Your task to perform on an android device: open a new tab in the chrome app Image 0: 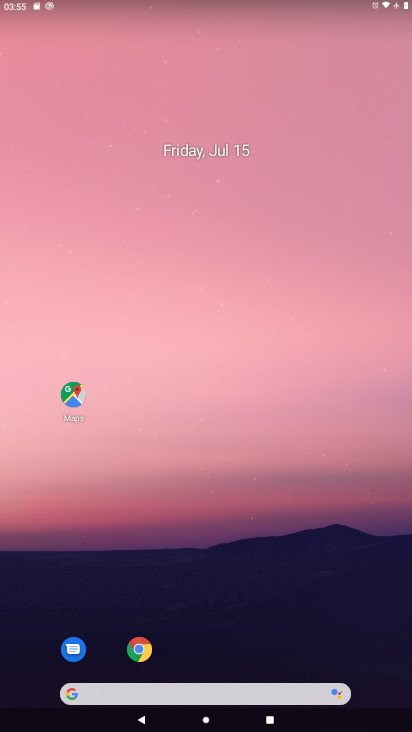
Step 0: click (139, 647)
Your task to perform on an android device: open a new tab in the chrome app Image 1: 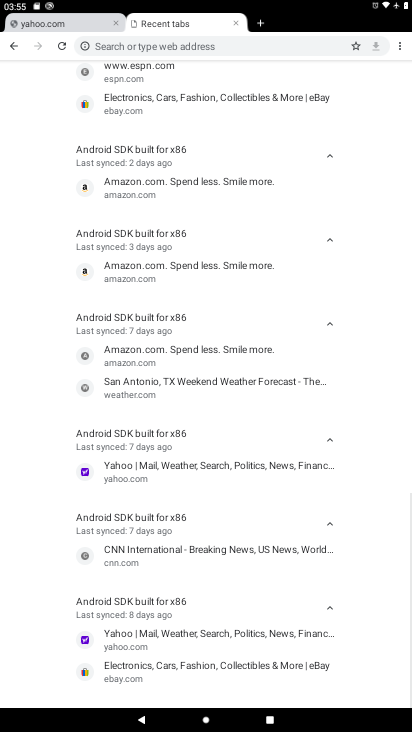
Step 1: click (399, 46)
Your task to perform on an android device: open a new tab in the chrome app Image 2: 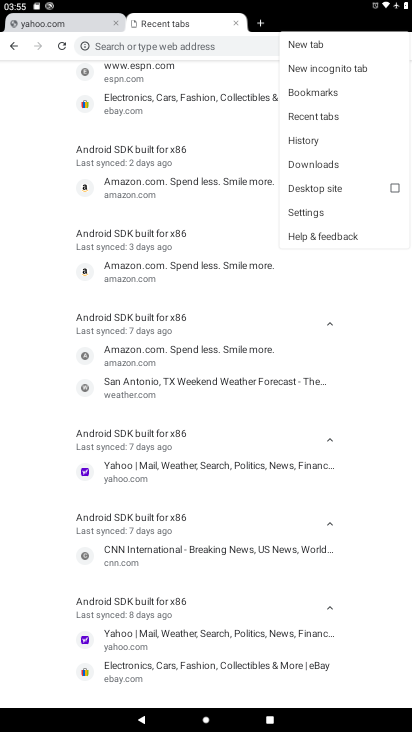
Step 2: click (297, 38)
Your task to perform on an android device: open a new tab in the chrome app Image 3: 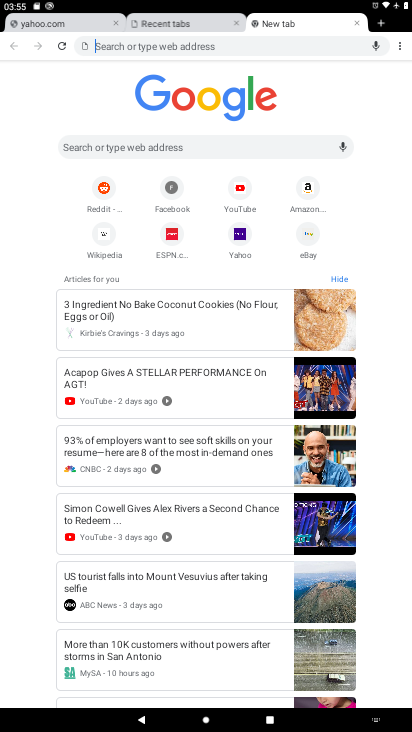
Step 3: task complete